Your task to perform on an android device: Open network settings Image 0: 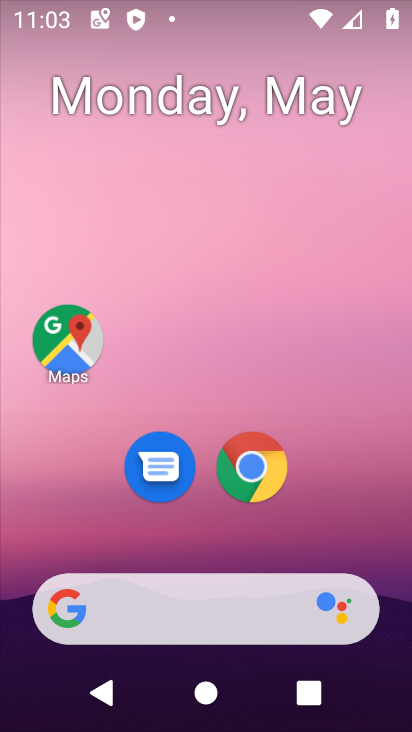
Step 0: drag from (333, 515) to (339, 55)
Your task to perform on an android device: Open network settings Image 1: 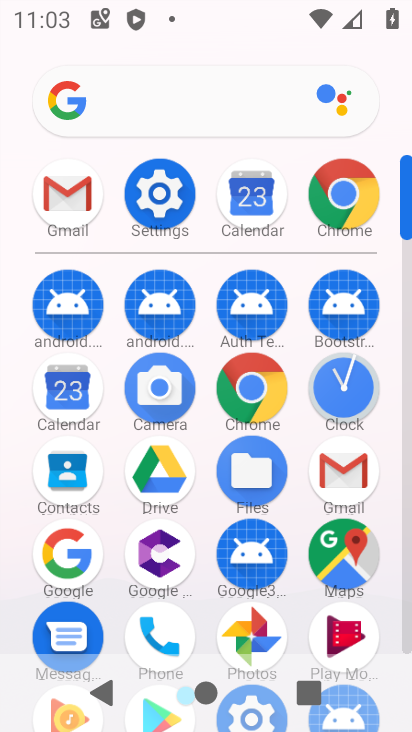
Step 1: click (151, 197)
Your task to perform on an android device: Open network settings Image 2: 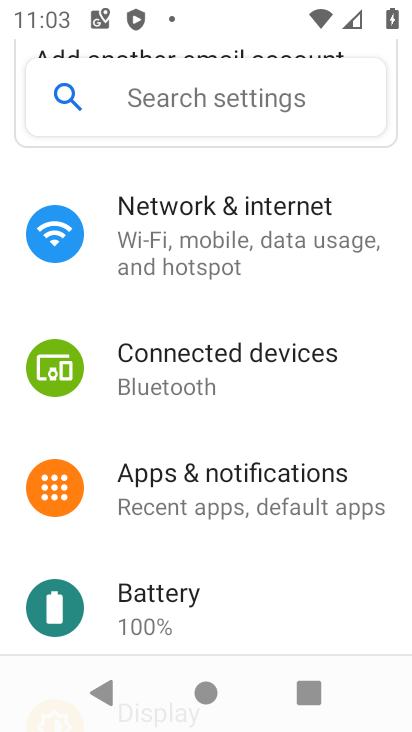
Step 2: click (180, 230)
Your task to perform on an android device: Open network settings Image 3: 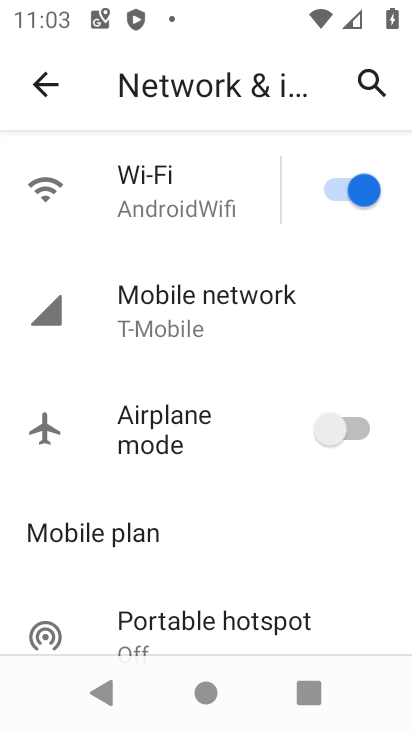
Step 3: click (191, 293)
Your task to perform on an android device: Open network settings Image 4: 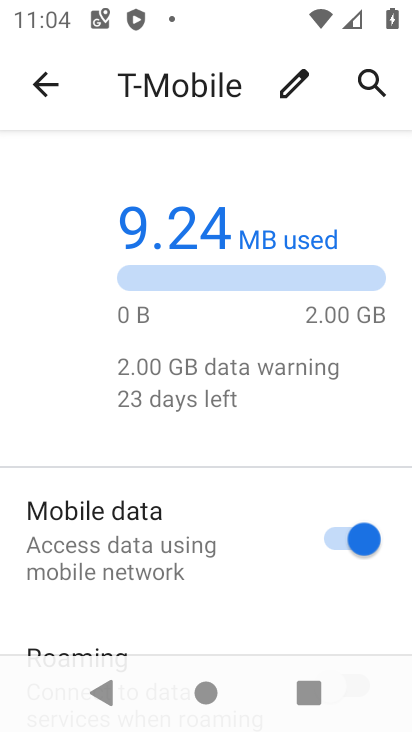
Step 4: task complete